Your task to perform on an android device: turn on showing notifications on the lock screen Image 0: 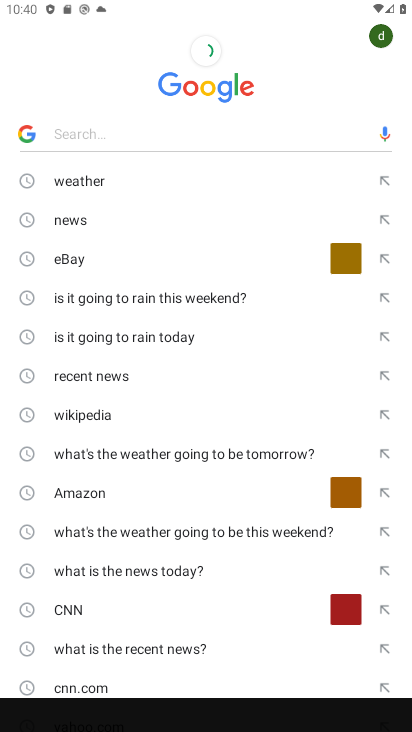
Step 0: press home button
Your task to perform on an android device: turn on showing notifications on the lock screen Image 1: 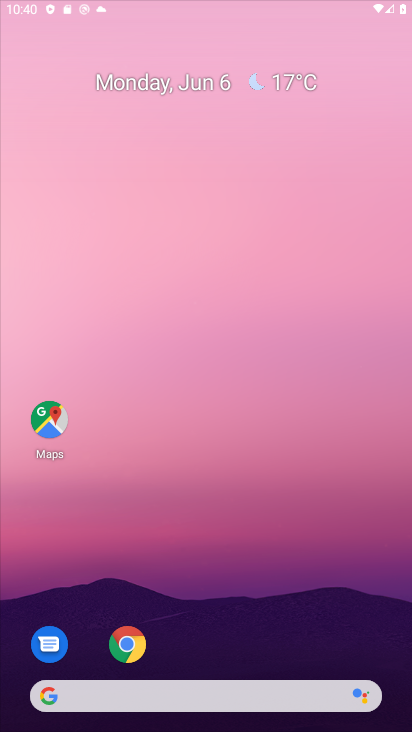
Step 1: drag from (325, 595) to (243, 73)
Your task to perform on an android device: turn on showing notifications on the lock screen Image 2: 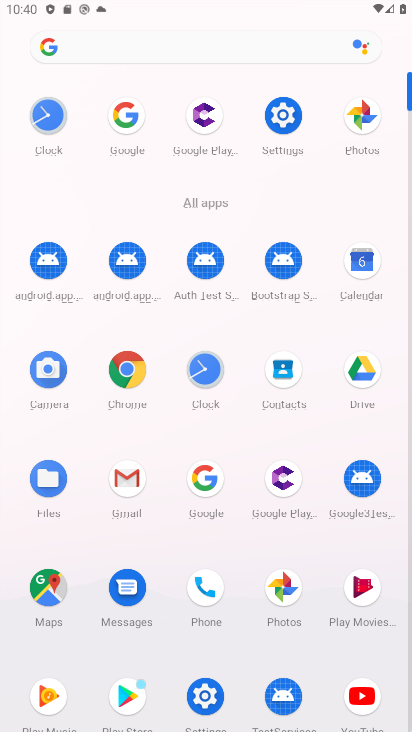
Step 2: click (219, 696)
Your task to perform on an android device: turn on showing notifications on the lock screen Image 3: 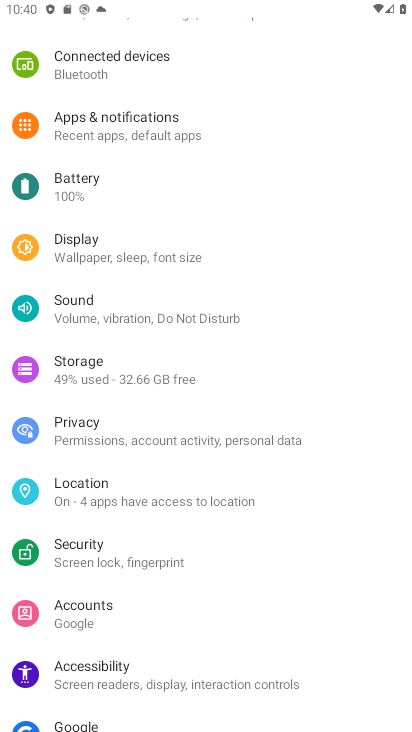
Step 3: click (76, 113)
Your task to perform on an android device: turn on showing notifications on the lock screen Image 4: 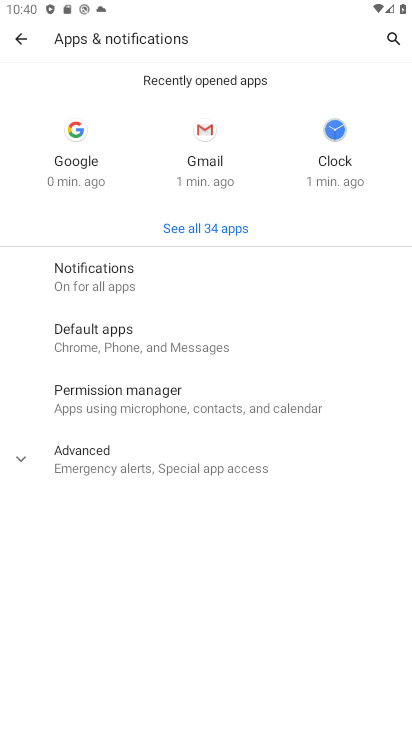
Step 4: click (162, 273)
Your task to perform on an android device: turn on showing notifications on the lock screen Image 5: 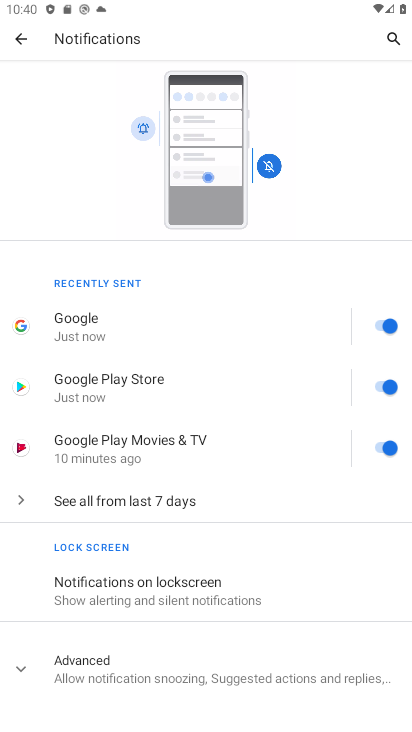
Step 5: drag from (165, 600) to (151, 408)
Your task to perform on an android device: turn on showing notifications on the lock screen Image 6: 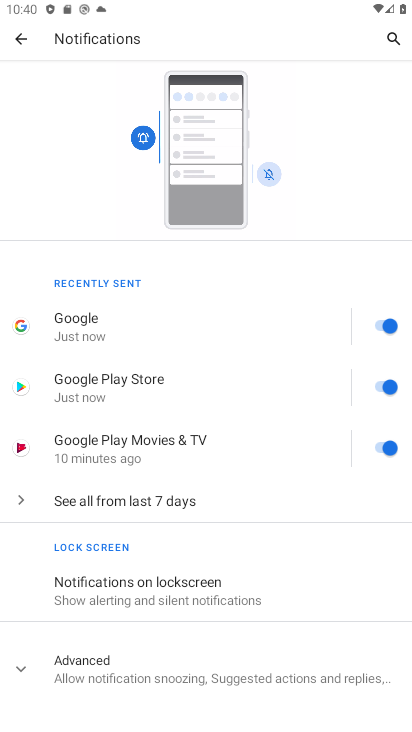
Step 6: click (162, 572)
Your task to perform on an android device: turn on showing notifications on the lock screen Image 7: 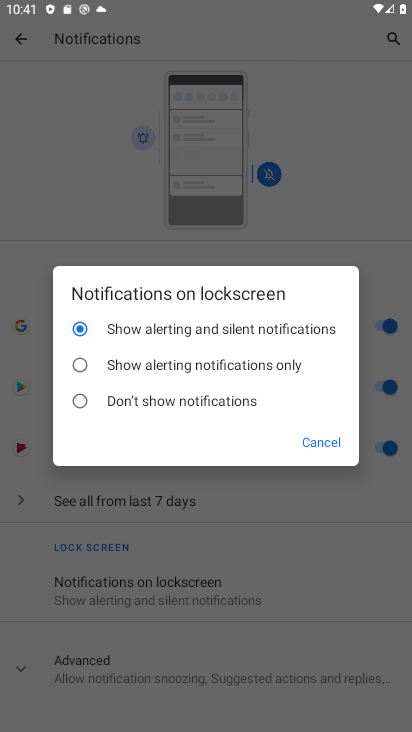
Step 7: click (158, 372)
Your task to perform on an android device: turn on showing notifications on the lock screen Image 8: 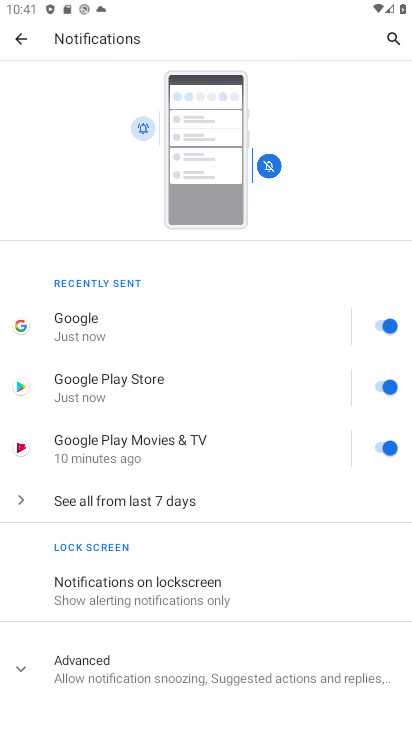
Step 8: task complete